Your task to perform on an android device: View the shopping cart on target.com. Search for "logitech g910" on target.com, select the first entry, add it to the cart, then select checkout. Image 0: 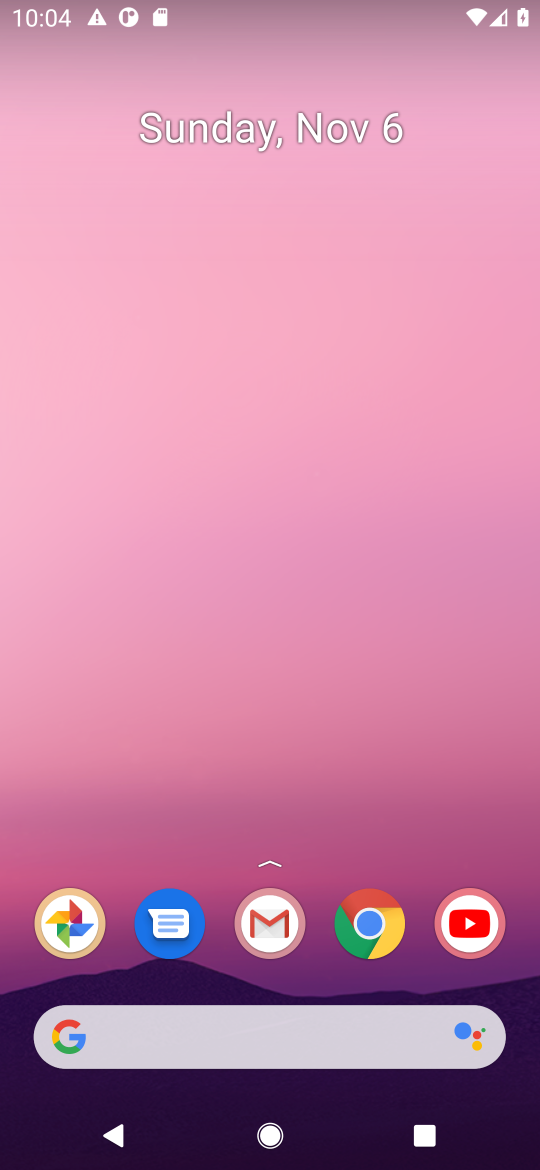
Step 0: click (374, 930)
Your task to perform on an android device: View the shopping cart on target.com. Search for "logitech g910" on target.com, select the first entry, add it to the cart, then select checkout. Image 1: 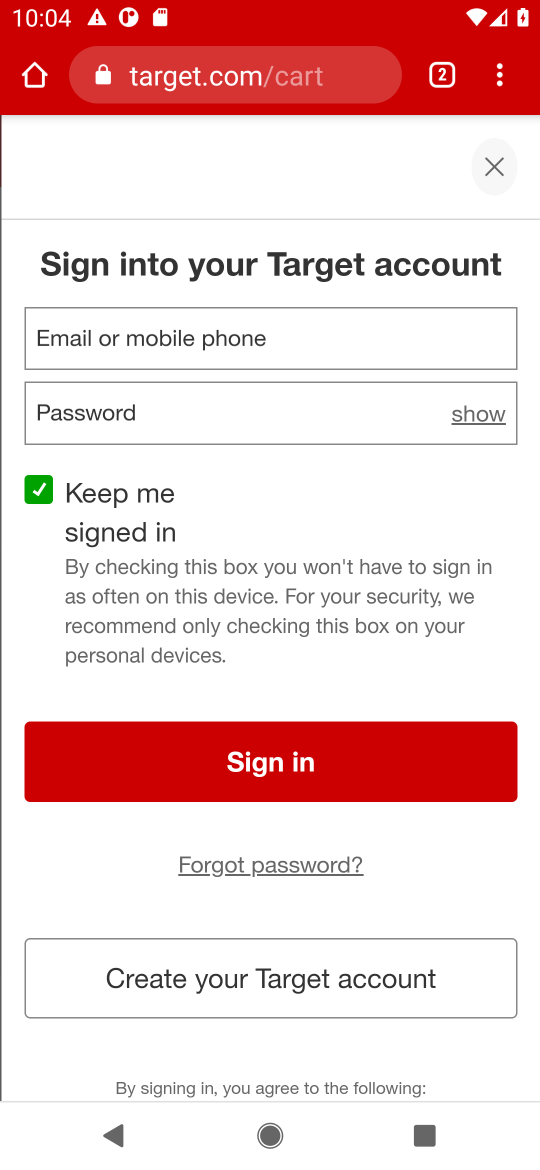
Step 1: click (207, 80)
Your task to perform on an android device: View the shopping cart on target.com. Search for "logitech g910" on target.com, select the first entry, add it to the cart, then select checkout. Image 2: 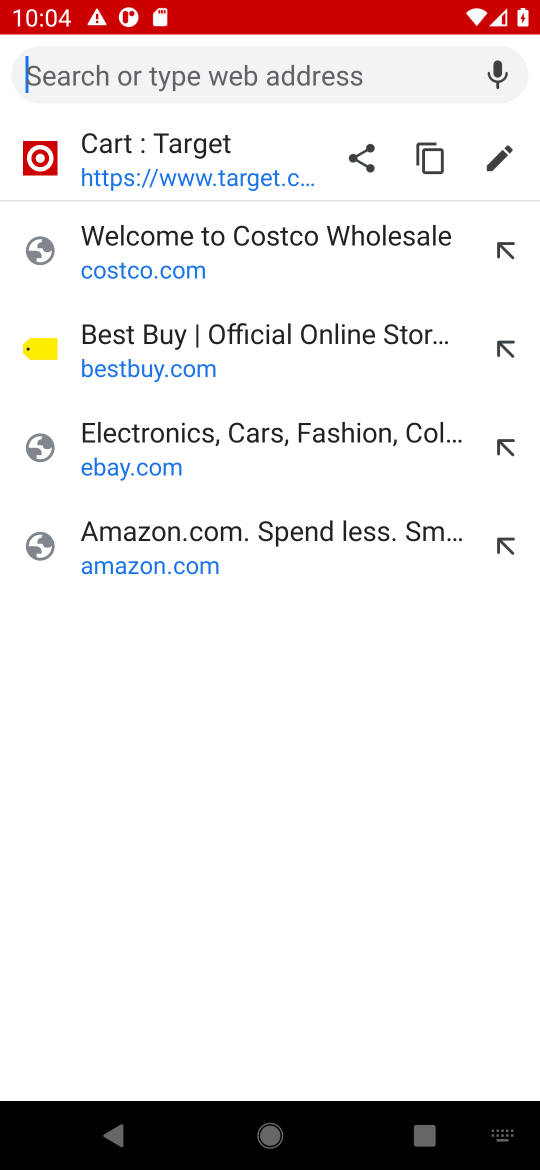
Step 2: click (173, 154)
Your task to perform on an android device: View the shopping cart on target.com. Search for "logitech g910" on target.com, select the first entry, add it to the cart, then select checkout. Image 3: 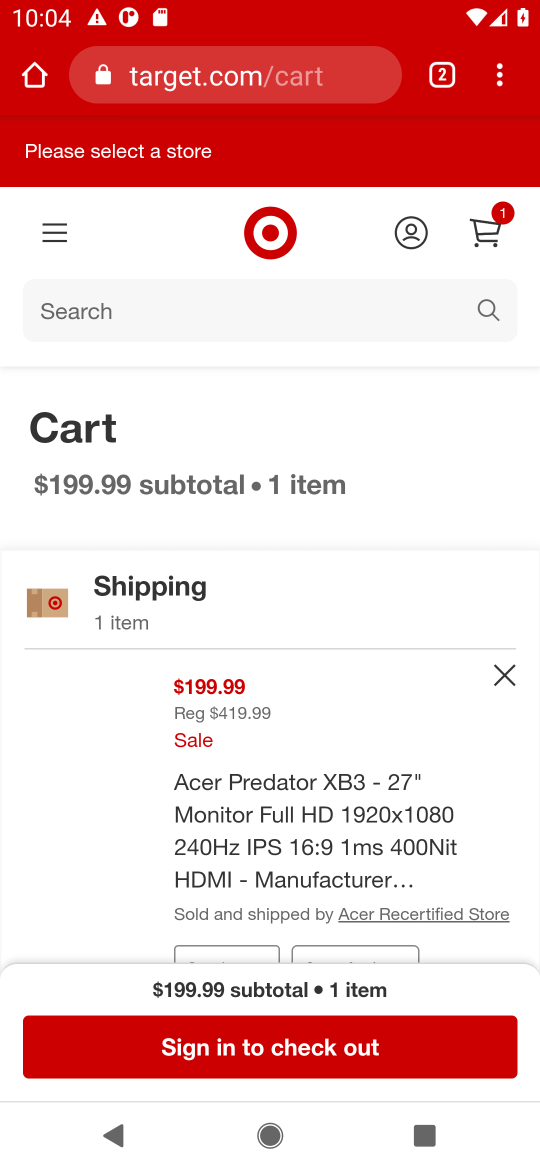
Step 3: click (489, 241)
Your task to perform on an android device: View the shopping cart on target.com. Search for "logitech g910" on target.com, select the first entry, add it to the cart, then select checkout. Image 4: 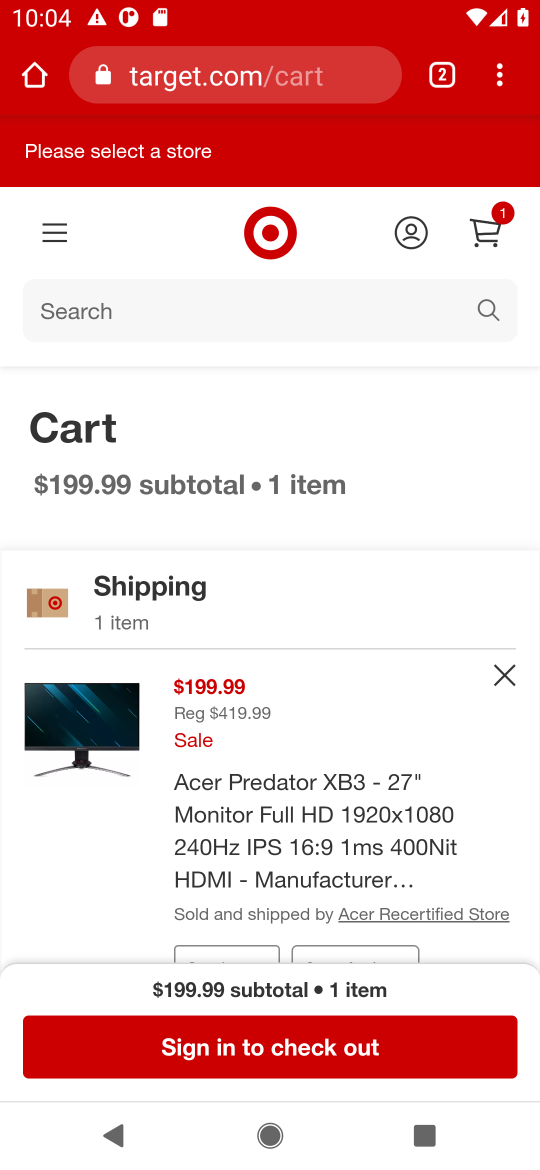
Step 4: drag from (300, 824) to (319, 465)
Your task to perform on an android device: View the shopping cart on target.com. Search for "logitech g910" on target.com, select the first entry, add it to the cart, then select checkout. Image 5: 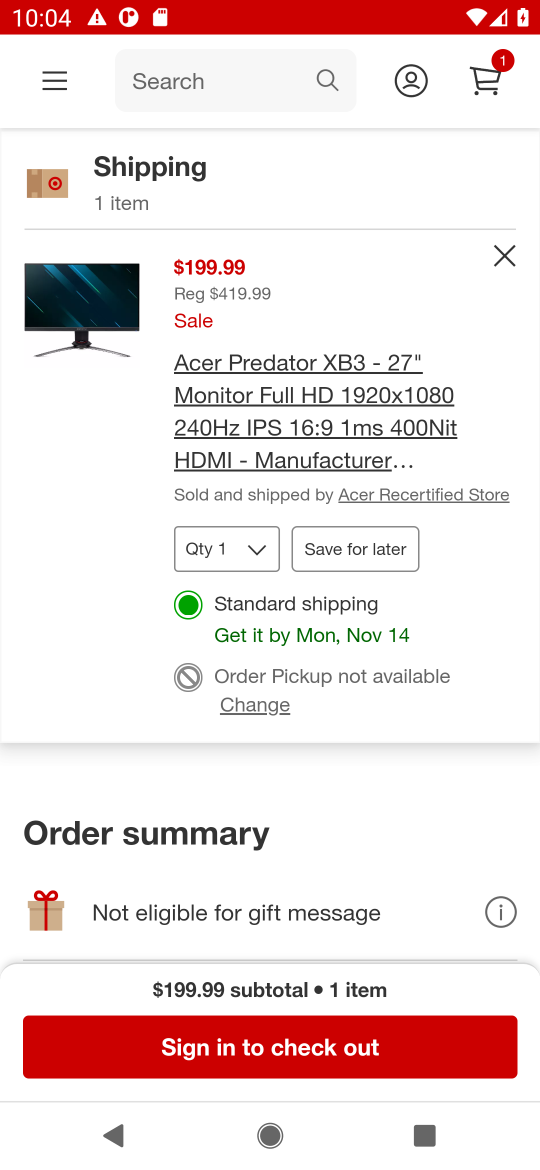
Step 5: drag from (332, 196) to (363, 627)
Your task to perform on an android device: View the shopping cart on target.com. Search for "logitech g910" on target.com, select the first entry, add it to the cart, then select checkout. Image 6: 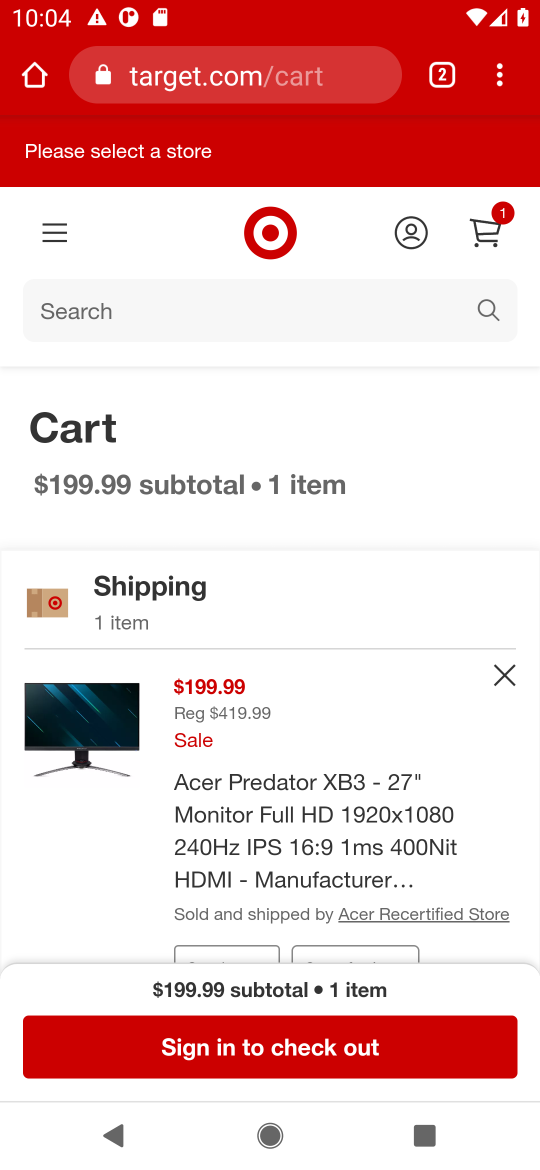
Step 6: click (326, 144)
Your task to perform on an android device: View the shopping cart on target.com. Search for "logitech g910" on target.com, select the first entry, add it to the cart, then select checkout. Image 7: 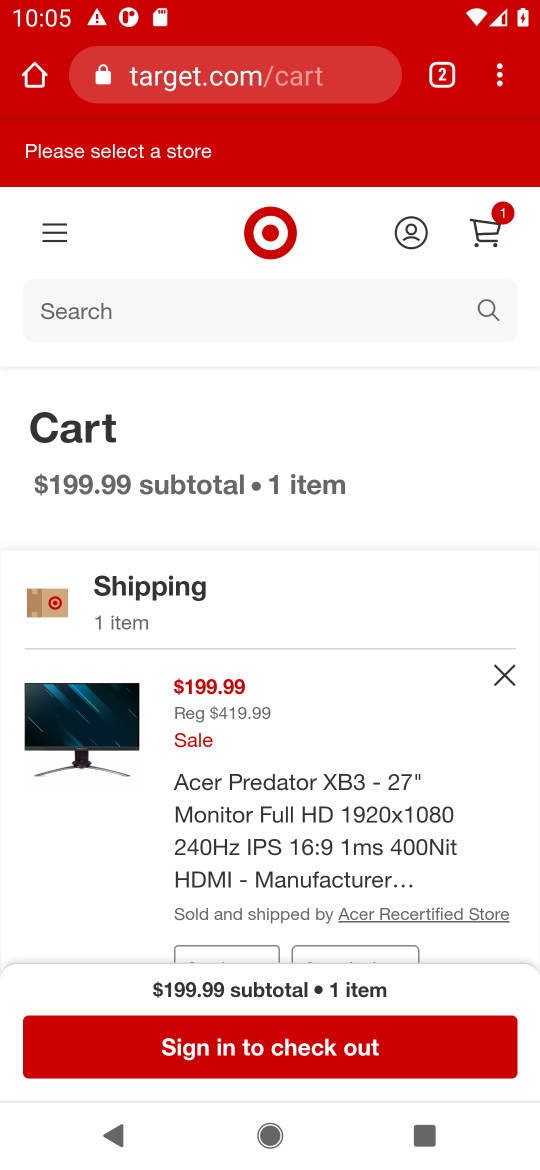
Step 7: click (505, 317)
Your task to perform on an android device: View the shopping cart on target.com. Search for "logitech g910" on target.com, select the first entry, add it to the cart, then select checkout. Image 8: 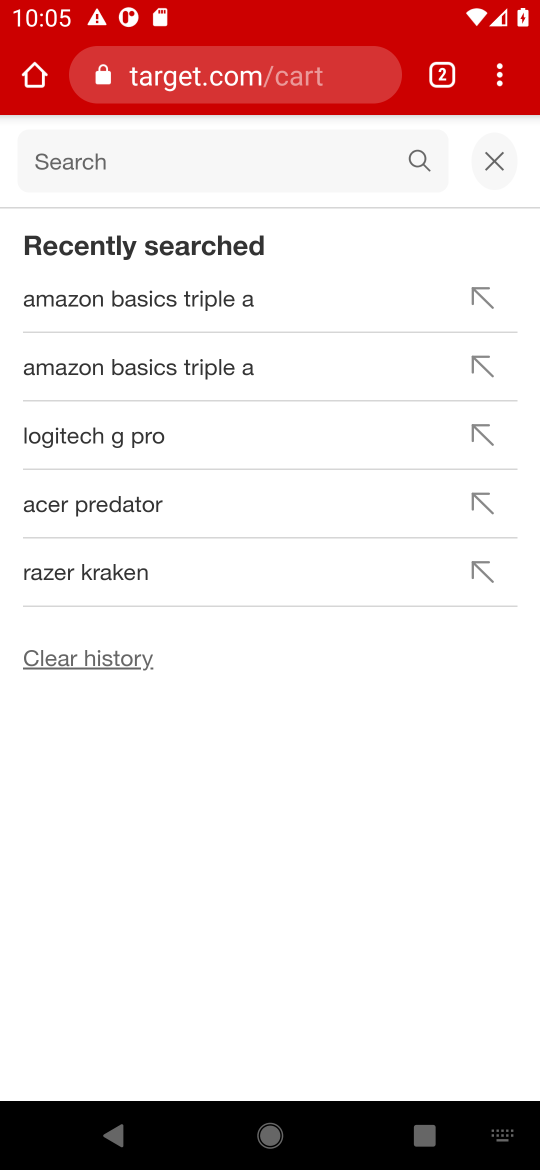
Step 8: type "logitech g910"
Your task to perform on an android device: View the shopping cart on target.com. Search for "logitech g910" on target.com, select the first entry, add it to the cart, then select checkout. Image 9: 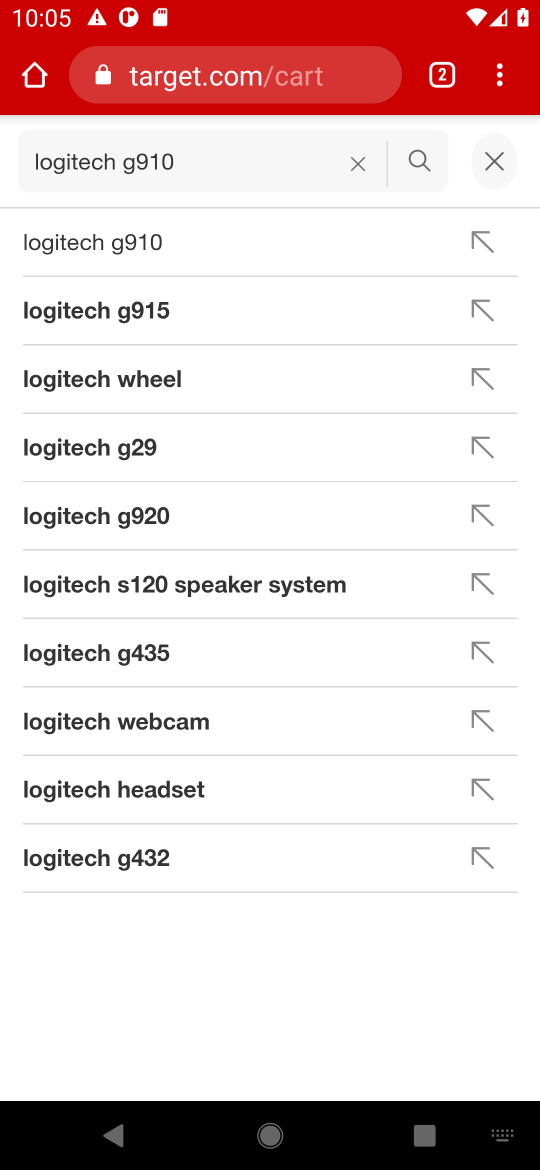
Step 9: click (139, 242)
Your task to perform on an android device: View the shopping cart on target.com. Search for "logitech g910" on target.com, select the first entry, add it to the cart, then select checkout. Image 10: 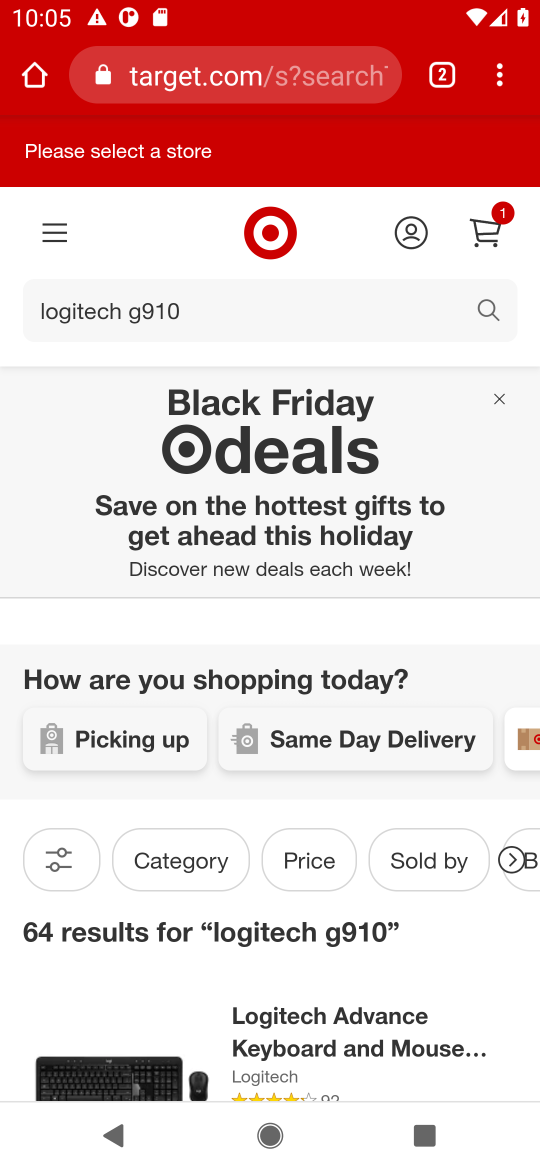
Step 10: task complete